Your task to perform on an android device: find snoozed emails in the gmail app Image 0: 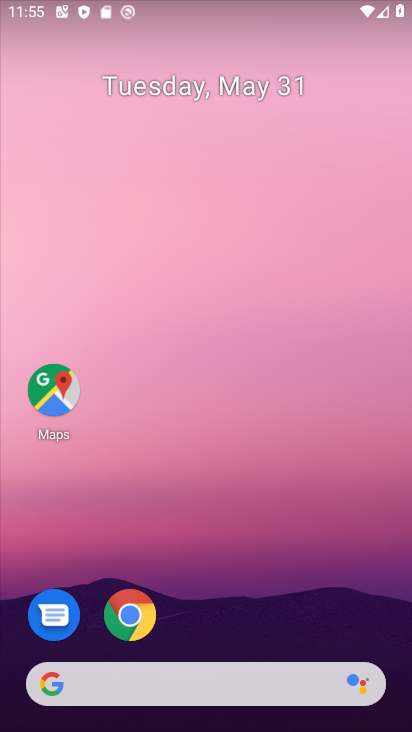
Step 0: task complete